Your task to perform on an android device: Do I have any events tomorrow? Image 0: 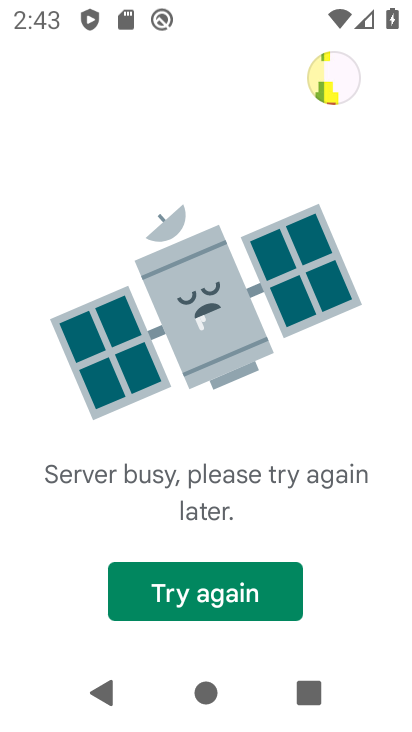
Step 0: press home button
Your task to perform on an android device: Do I have any events tomorrow? Image 1: 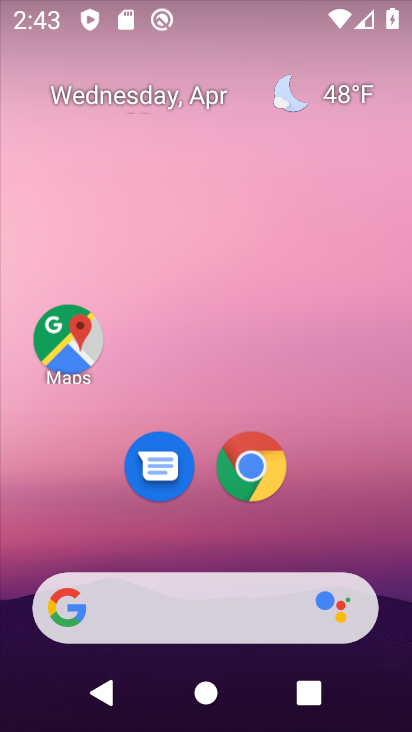
Step 1: drag from (312, 534) to (267, 87)
Your task to perform on an android device: Do I have any events tomorrow? Image 2: 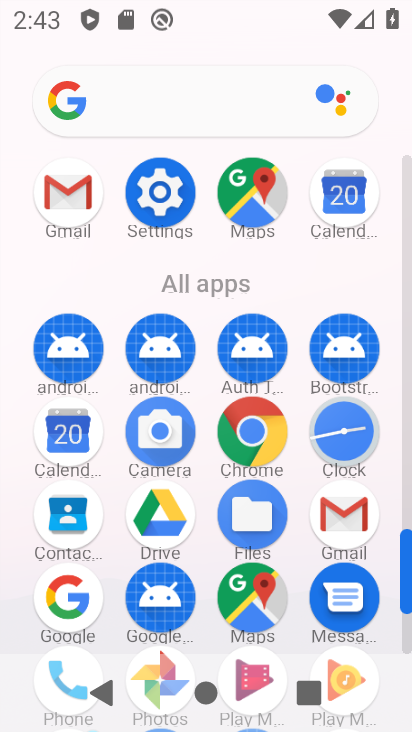
Step 2: click (336, 185)
Your task to perform on an android device: Do I have any events tomorrow? Image 3: 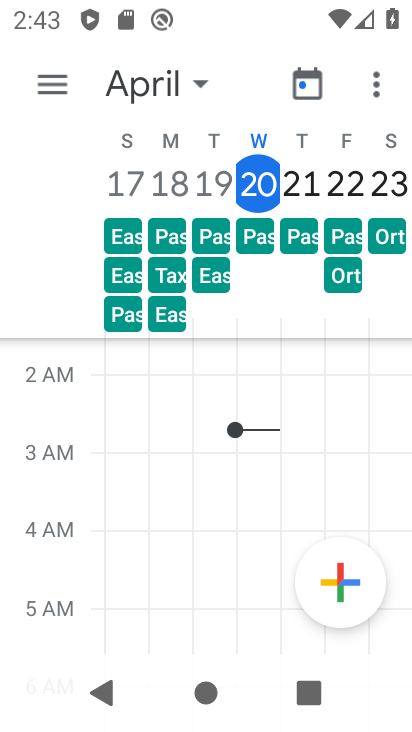
Step 3: drag from (306, 357) to (301, 575)
Your task to perform on an android device: Do I have any events tomorrow? Image 4: 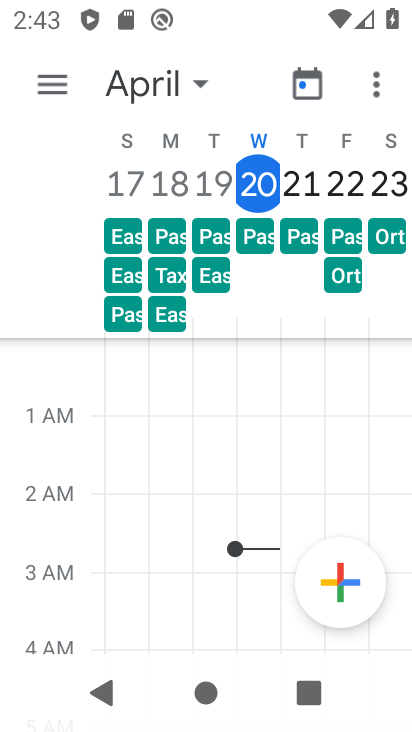
Step 4: drag from (302, 490) to (321, 289)
Your task to perform on an android device: Do I have any events tomorrow? Image 5: 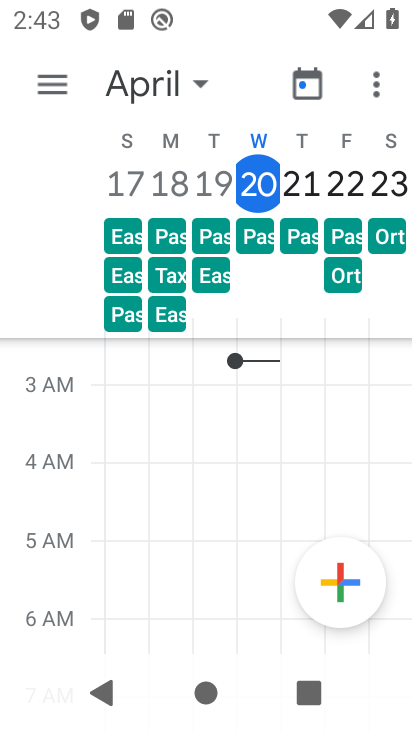
Step 5: drag from (256, 535) to (256, 345)
Your task to perform on an android device: Do I have any events tomorrow? Image 6: 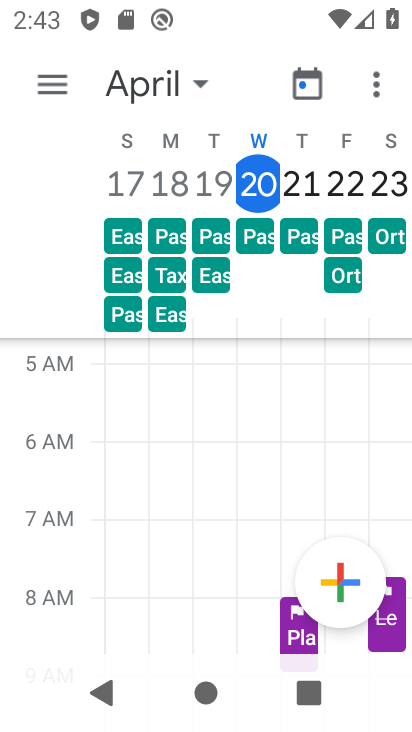
Step 6: drag from (253, 614) to (267, 336)
Your task to perform on an android device: Do I have any events tomorrow? Image 7: 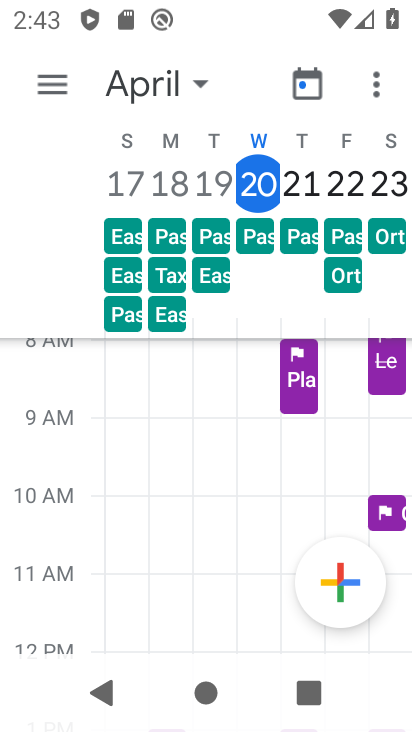
Step 7: click (294, 384)
Your task to perform on an android device: Do I have any events tomorrow? Image 8: 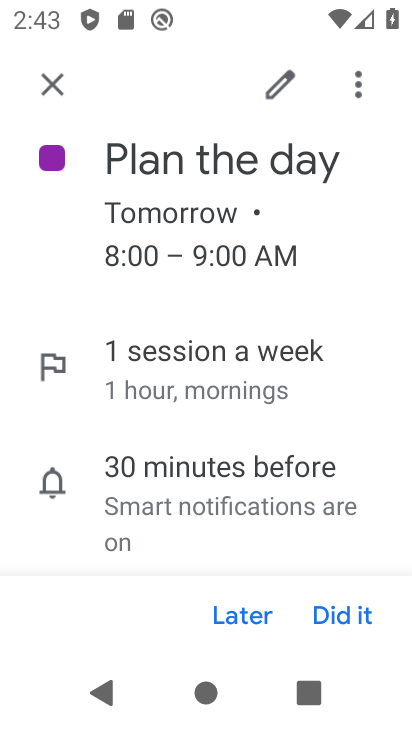
Step 8: task complete